Your task to perform on an android device: empty trash in the gmail app Image 0: 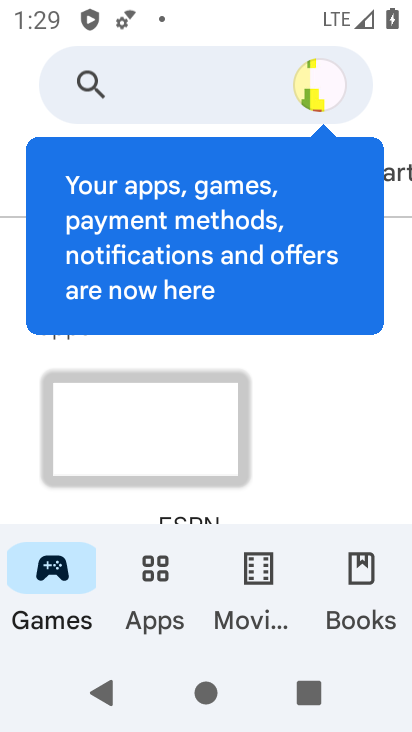
Step 0: press home button
Your task to perform on an android device: empty trash in the gmail app Image 1: 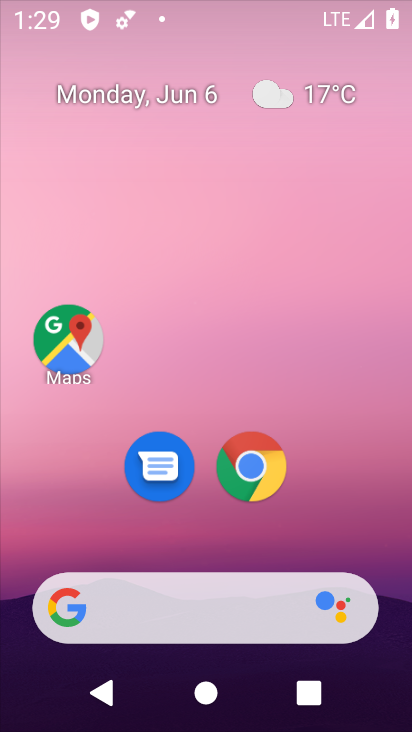
Step 1: drag from (345, 348) to (314, 70)
Your task to perform on an android device: empty trash in the gmail app Image 2: 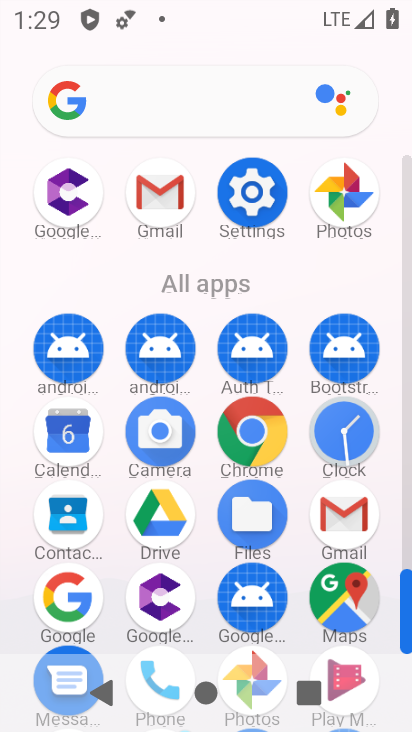
Step 2: click (169, 185)
Your task to perform on an android device: empty trash in the gmail app Image 3: 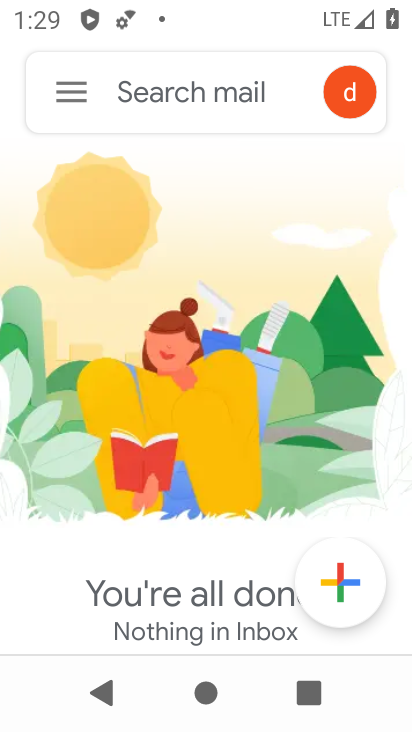
Step 3: click (68, 97)
Your task to perform on an android device: empty trash in the gmail app Image 4: 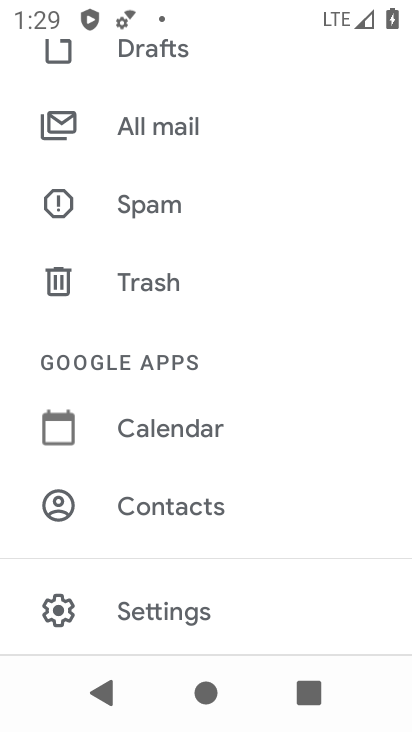
Step 4: click (149, 273)
Your task to perform on an android device: empty trash in the gmail app Image 5: 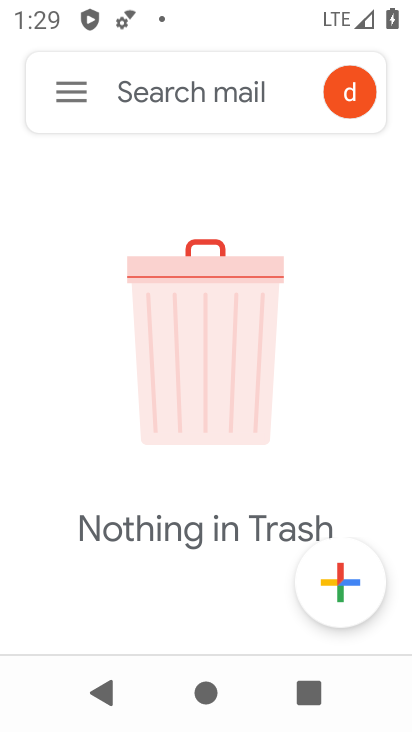
Step 5: task complete